Your task to perform on an android device: Open settings Image 0: 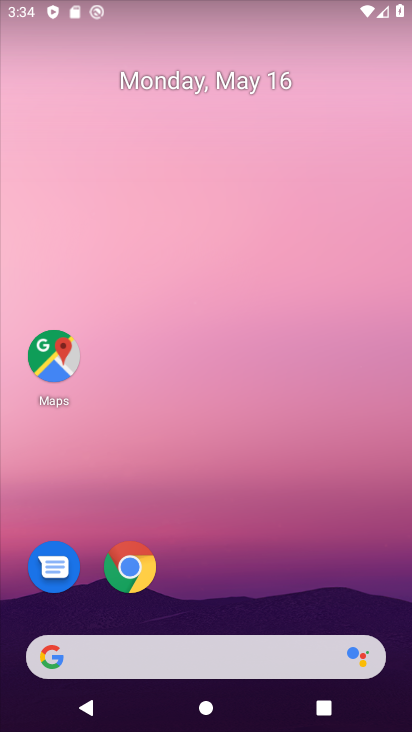
Step 0: drag from (242, 649) to (400, 0)
Your task to perform on an android device: Open settings Image 1: 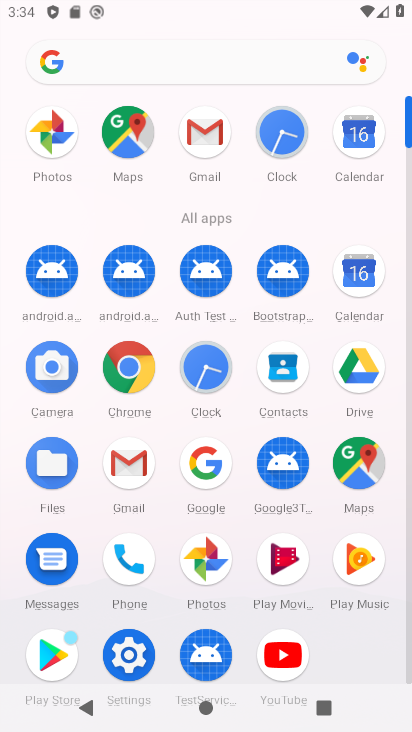
Step 1: click (133, 657)
Your task to perform on an android device: Open settings Image 2: 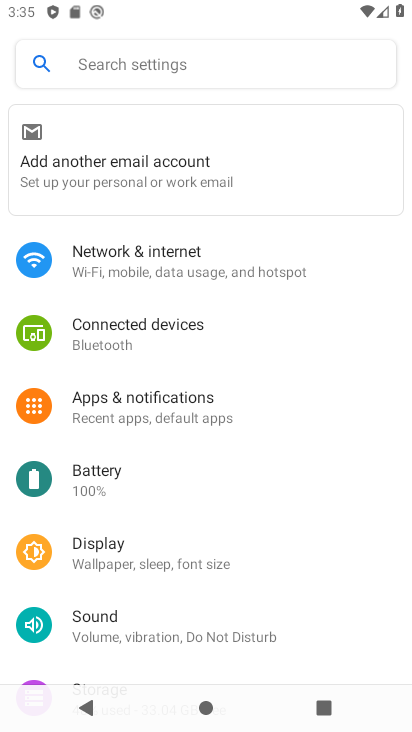
Step 2: task complete